Your task to perform on an android device: change alarm snooze length Image 0: 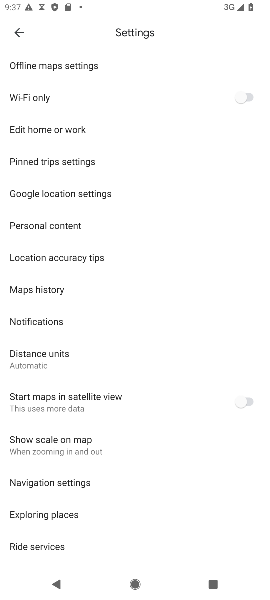
Step 0: press home button
Your task to perform on an android device: change alarm snooze length Image 1: 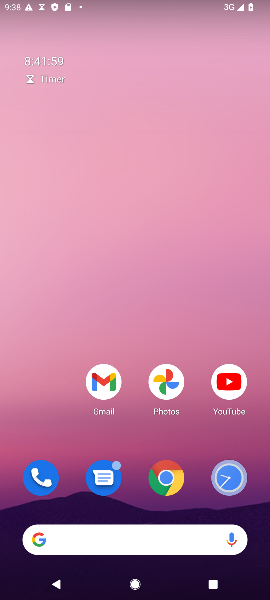
Step 1: click (228, 480)
Your task to perform on an android device: change alarm snooze length Image 2: 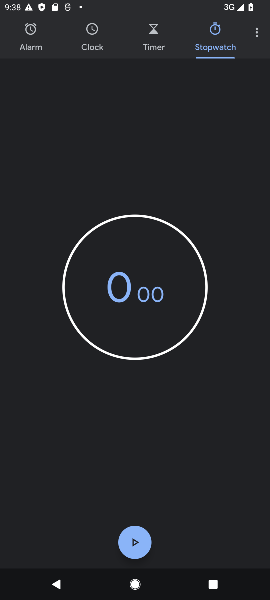
Step 2: click (258, 35)
Your task to perform on an android device: change alarm snooze length Image 3: 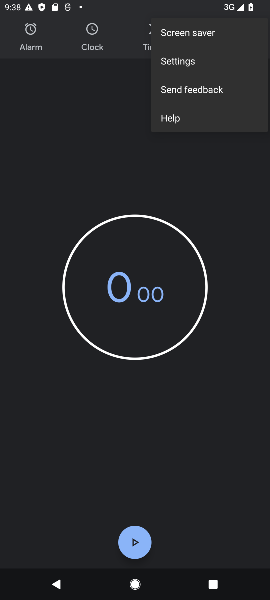
Step 3: click (176, 69)
Your task to perform on an android device: change alarm snooze length Image 4: 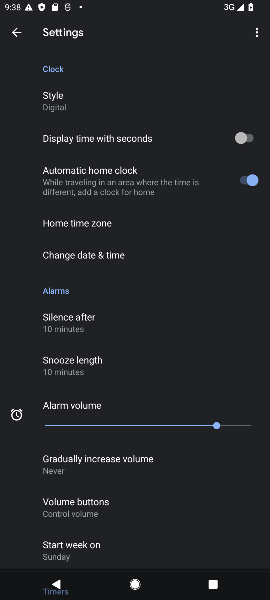
Step 4: click (120, 364)
Your task to perform on an android device: change alarm snooze length Image 5: 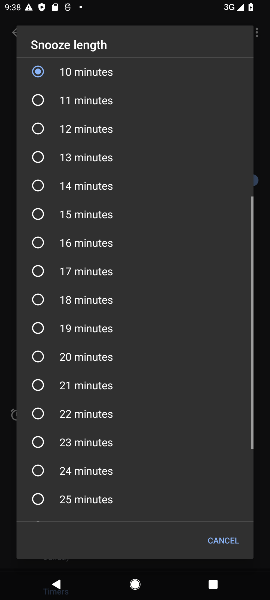
Step 5: click (100, 391)
Your task to perform on an android device: change alarm snooze length Image 6: 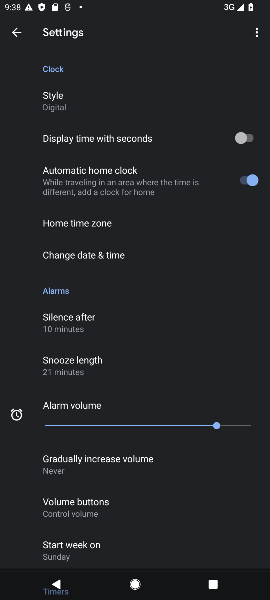
Step 6: task complete